Your task to perform on an android device: toggle notification dots Image 0: 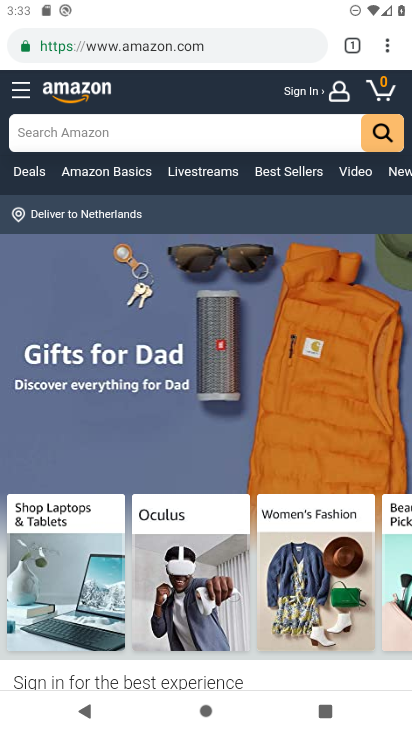
Step 0: press home button
Your task to perform on an android device: toggle notification dots Image 1: 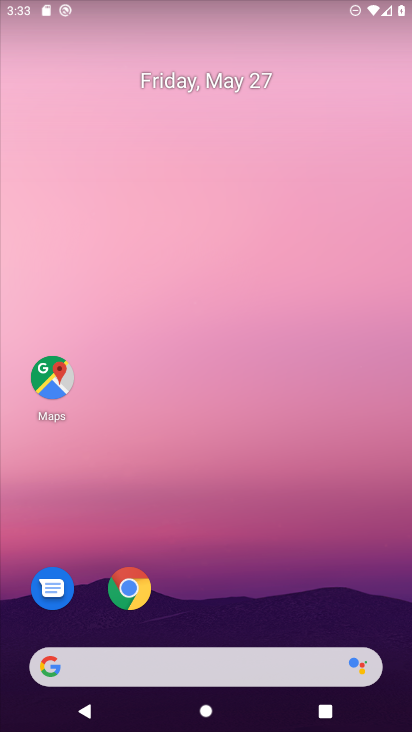
Step 1: drag from (357, 550) to (245, 4)
Your task to perform on an android device: toggle notification dots Image 2: 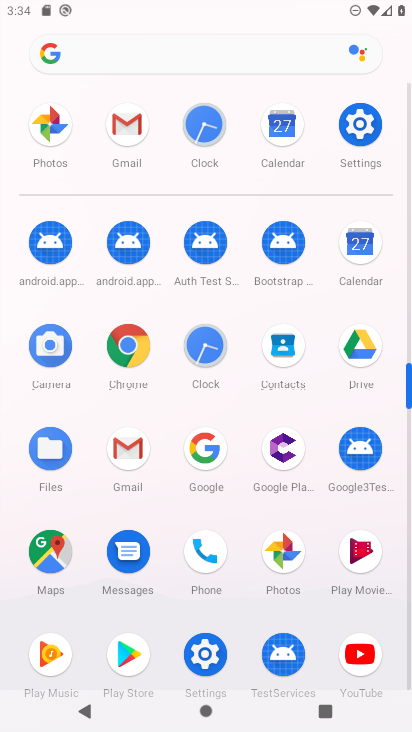
Step 2: click (200, 658)
Your task to perform on an android device: toggle notification dots Image 3: 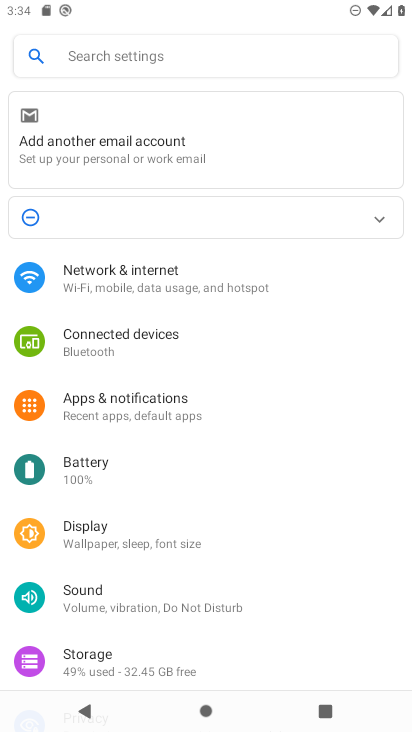
Step 3: click (184, 404)
Your task to perform on an android device: toggle notification dots Image 4: 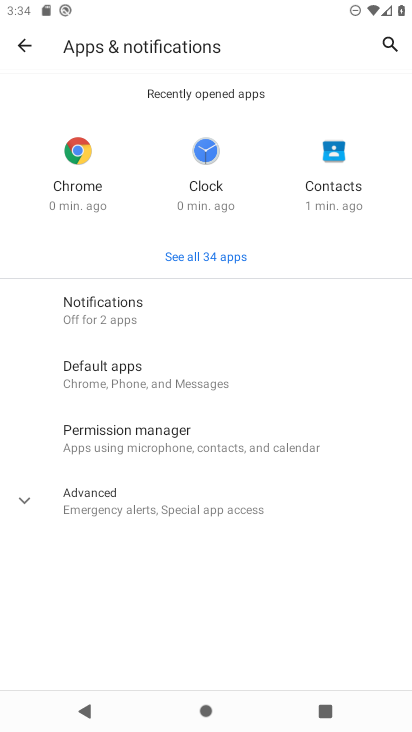
Step 4: click (158, 294)
Your task to perform on an android device: toggle notification dots Image 5: 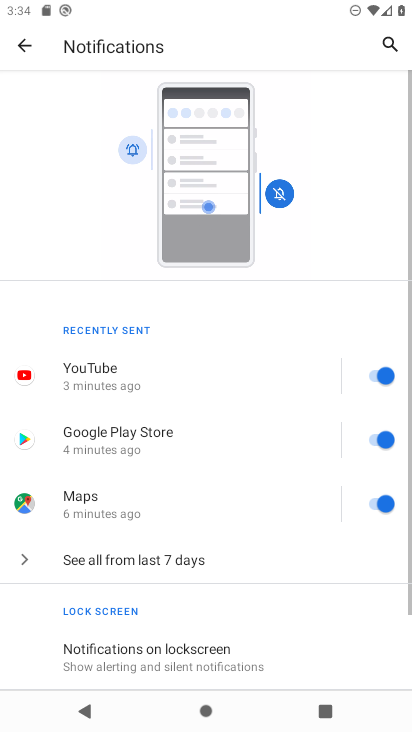
Step 5: drag from (321, 598) to (209, 99)
Your task to perform on an android device: toggle notification dots Image 6: 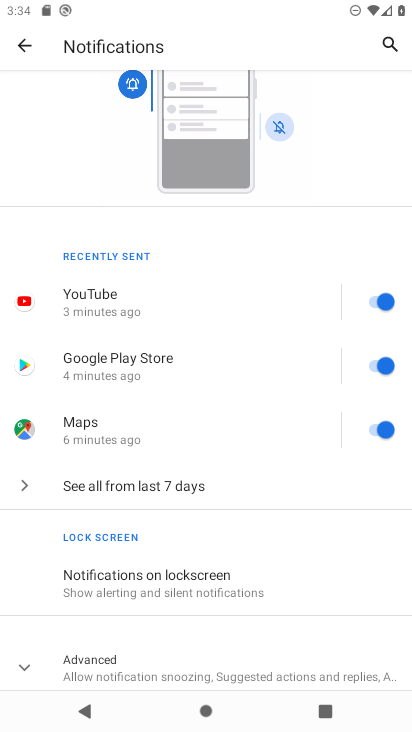
Step 6: click (215, 654)
Your task to perform on an android device: toggle notification dots Image 7: 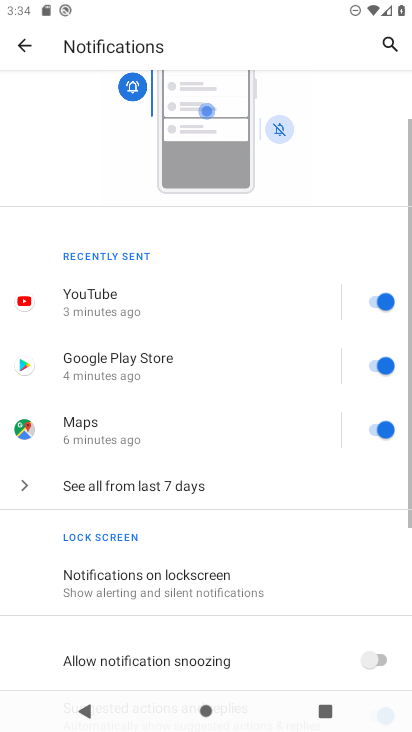
Step 7: drag from (215, 654) to (171, 241)
Your task to perform on an android device: toggle notification dots Image 8: 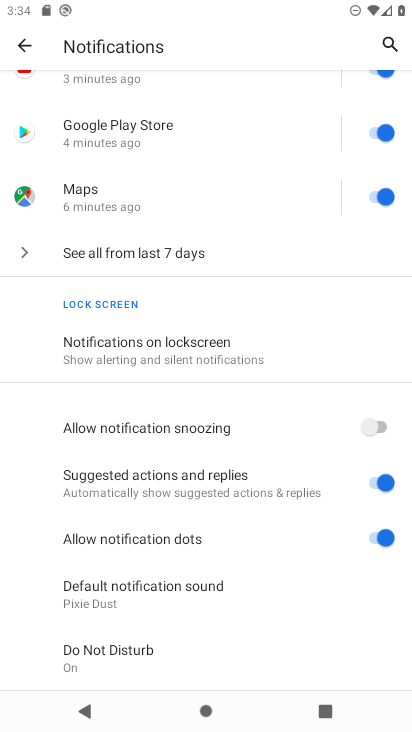
Step 8: click (389, 543)
Your task to perform on an android device: toggle notification dots Image 9: 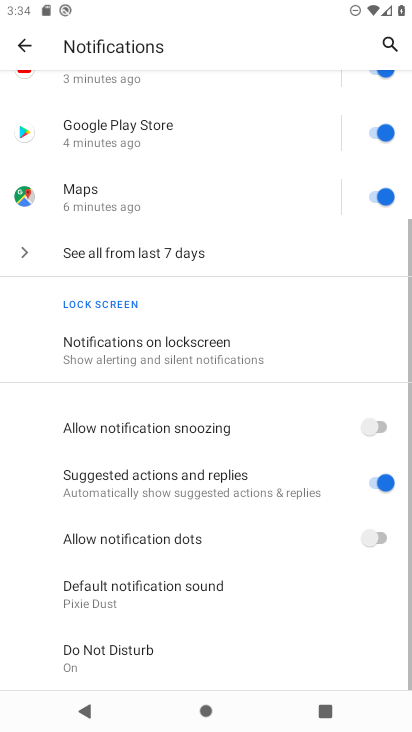
Step 9: task complete